Your task to perform on an android device: Check the news Image 0: 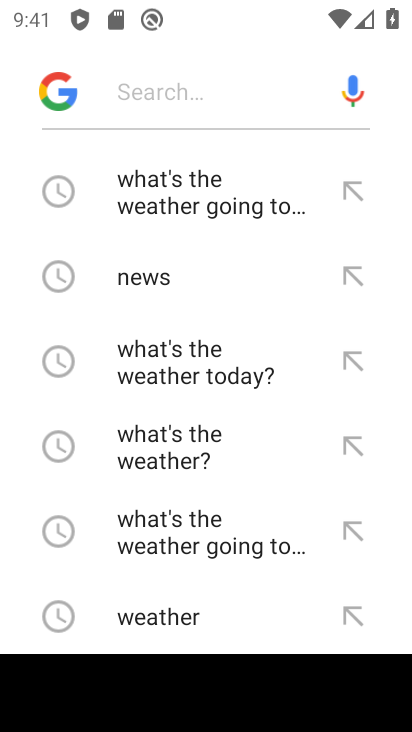
Step 0: press home button
Your task to perform on an android device: Check the news Image 1: 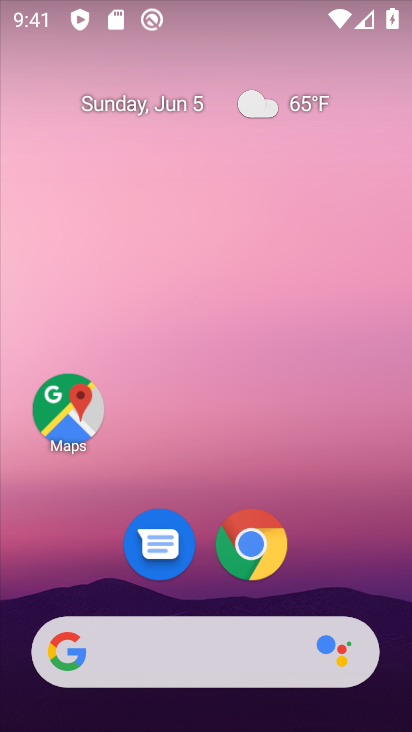
Step 1: click (239, 649)
Your task to perform on an android device: Check the news Image 2: 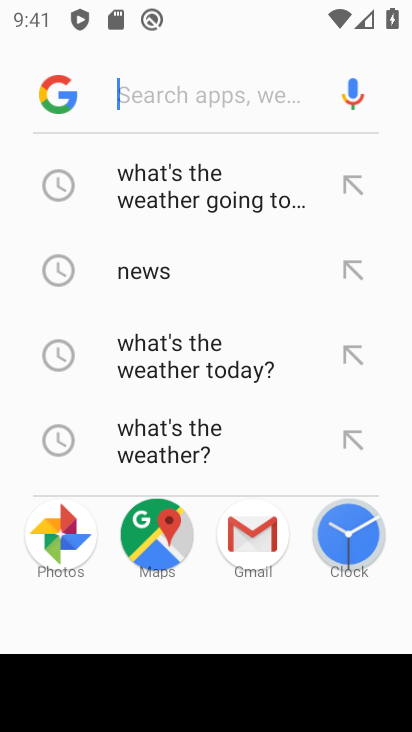
Step 2: click (161, 278)
Your task to perform on an android device: Check the news Image 3: 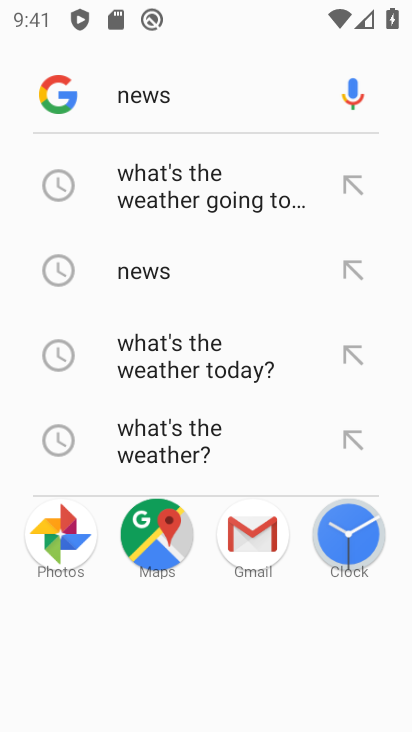
Step 3: task complete